Your task to perform on an android device: open a new tab in the chrome app Image 0: 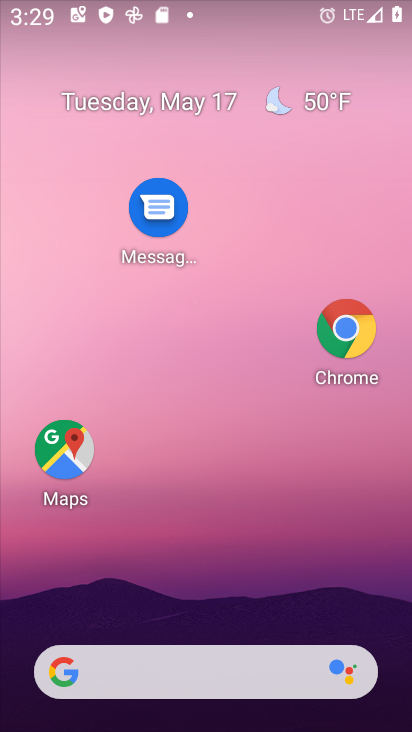
Step 0: click (355, 337)
Your task to perform on an android device: open a new tab in the chrome app Image 1: 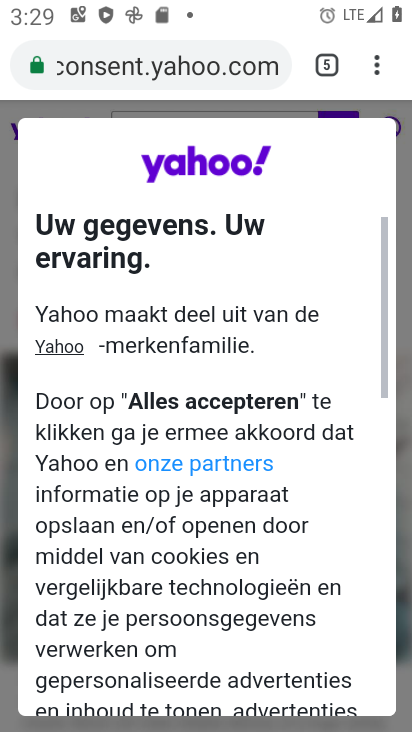
Step 1: click (333, 62)
Your task to perform on an android device: open a new tab in the chrome app Image 2: 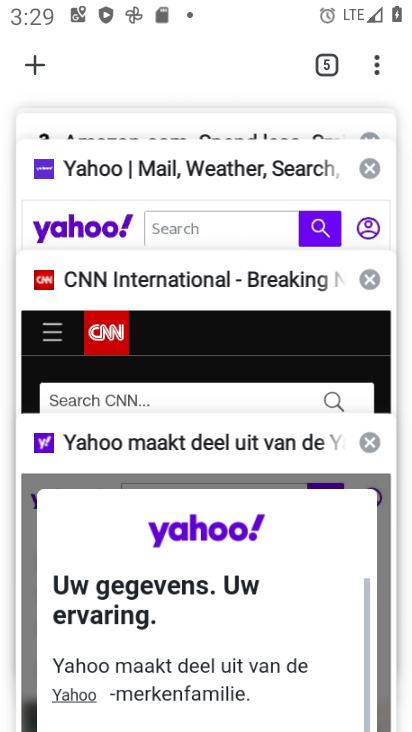
Step 2: click (36, 59)
Your task to perform on an android device: open a new tab in the chrome app Image 3: 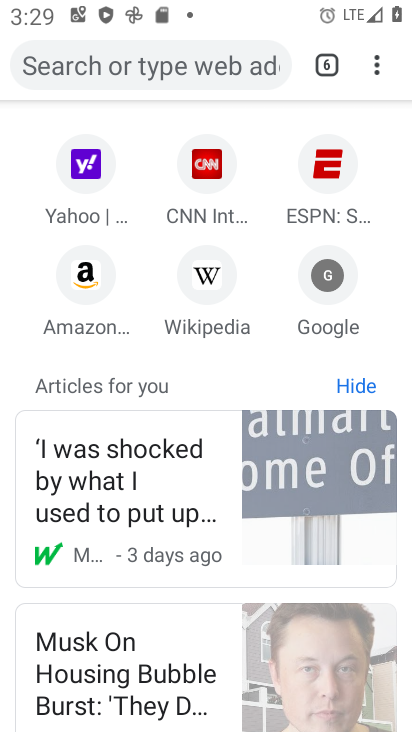
Step 3: task complete